Your task to perform on an android device: read, delete, or share a saved page in the chrome app Image 0: 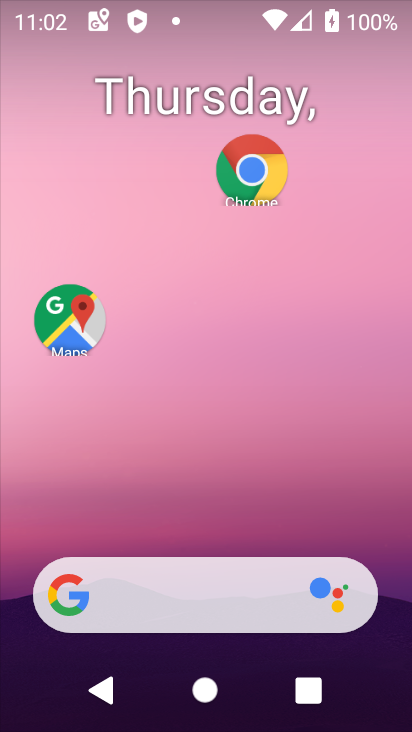
Step 0: click (257, 187)
Your task to perform on an android device: read, delete, or share a saved page in the chrome app Image 1: 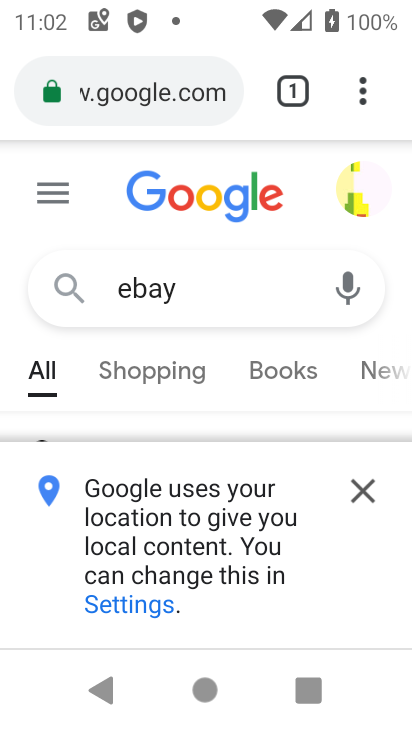
Step 1: click (369, 492)
Your task to perform on an android device: read, delete, or share a saved page in the chrome app Image 2: 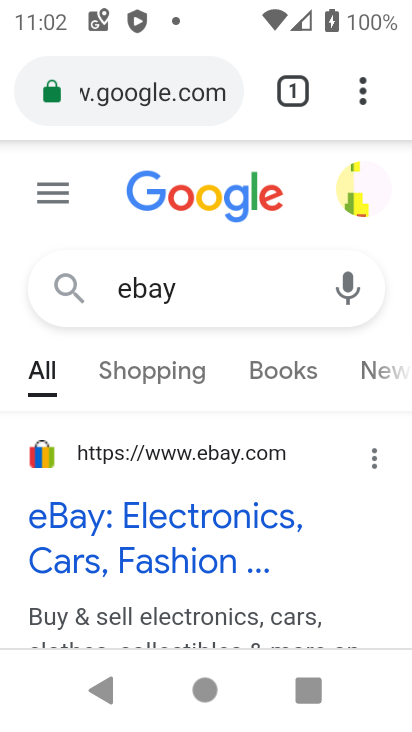
Step 2: click (359, 99)
Your task to perform on an android device: read, delete, or share a saved page in the chrome app Image 3: 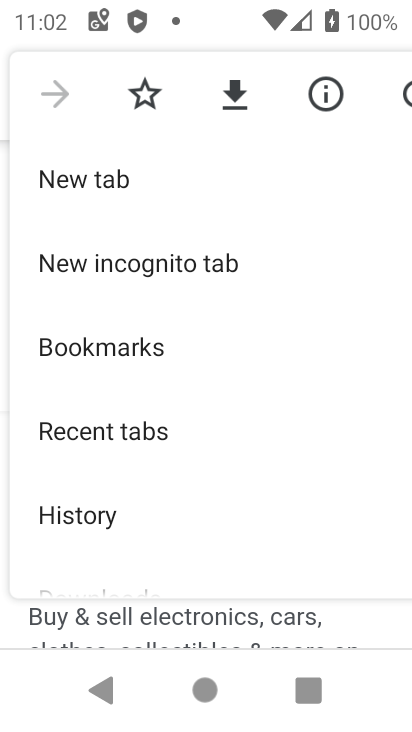
Step 3: drag from (111, 547) to (96, 241)
Your task to perform on an android device: read, delete, or share a saved page in the chrome app Image 4: 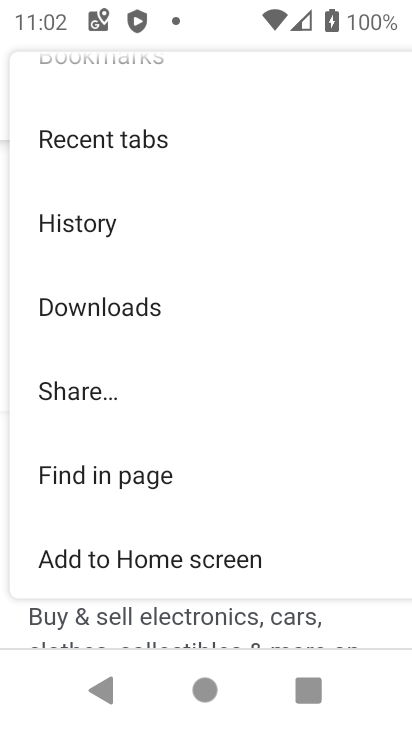
Step 4: click (108, 308)
Your task to perform on an android device: read, delete, or share a saved page in the chrome app Image 5: 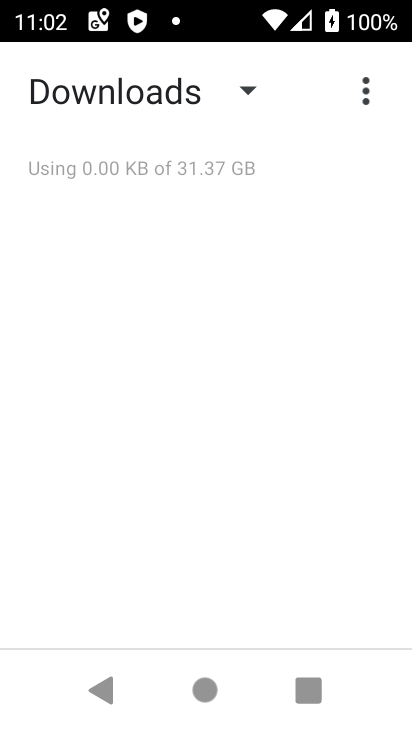
Step 5: click (249, 93)
Your task to perform on an android device: read, delete, or share a saved page in the chrome app Image 6: 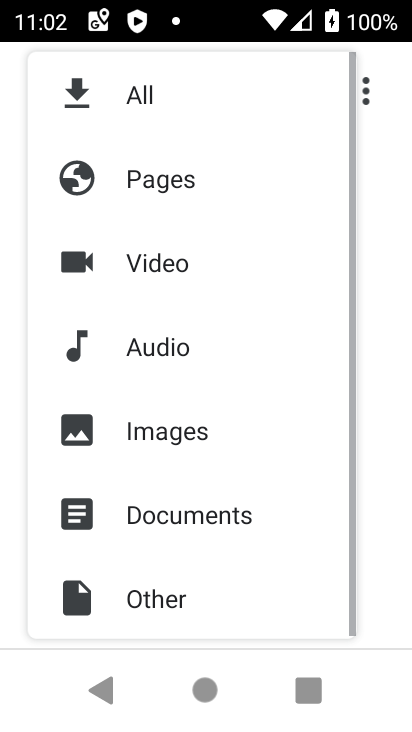
Step 6: click (206, 191)
Your task to perform on an android device: read, delete, or share a saved page in the chrome app Image 7: 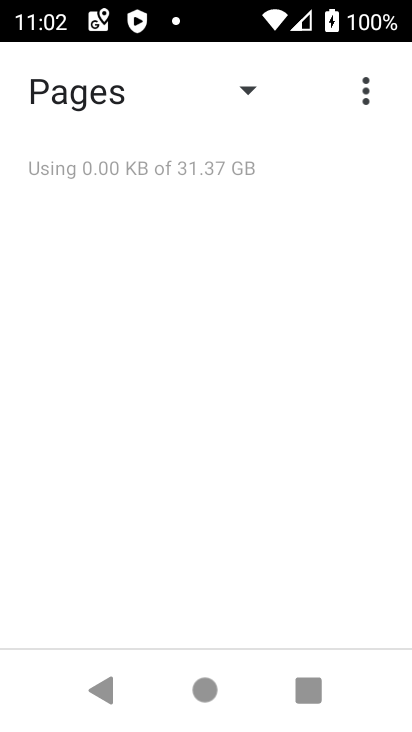
Step 7: task complete